Your task to perform on an android device: turn off sleep mode Image 0: 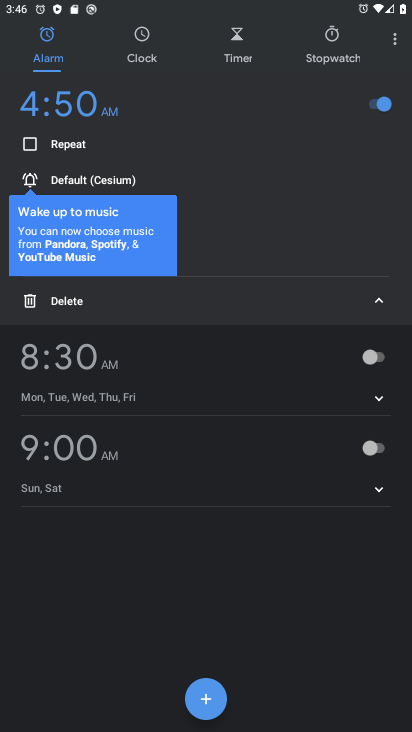
Step 0: press home button
Your task to perform on an android device: turn off sleep mode Image 1: 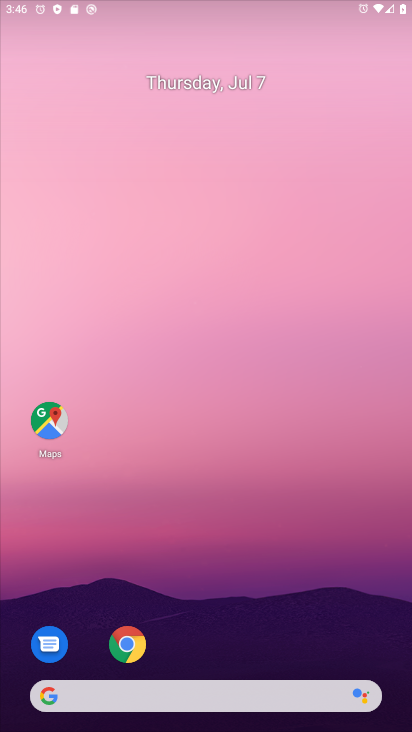
Step 1: drag from (350, 608) to (356, 39)
Your task to perform on an android device: turn off sleep mode Image 2: 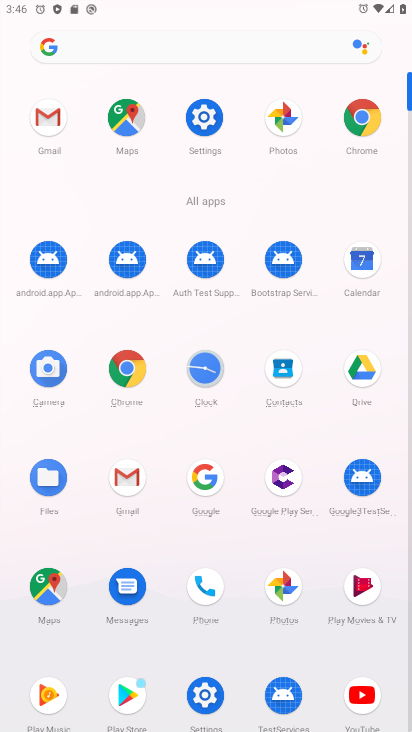
Step 2: click (195, 117)
Your task to perform on an android device: turn off sleep mode Image 3: 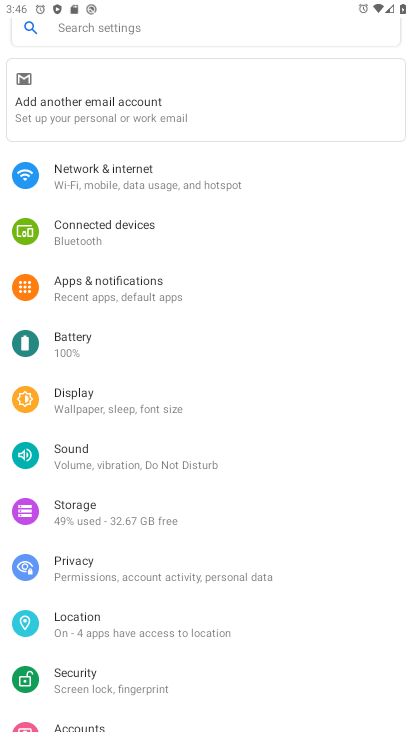
Step 3: click (49, 401)
Your task to perform on an android device: turn off sleep mode Image 4: 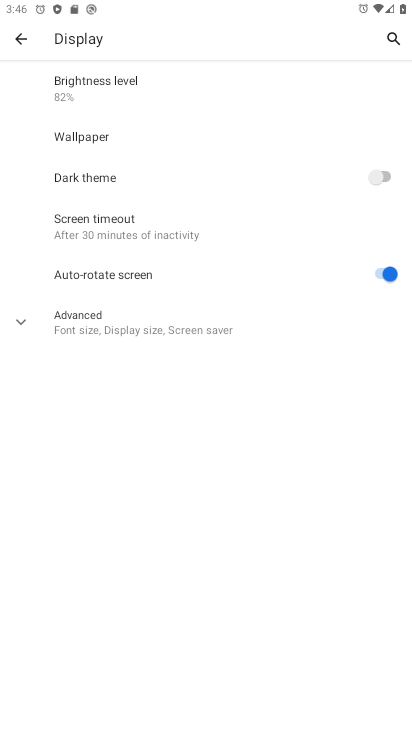
Step 4: click (13, 315)
Your task to perform on an android device: turn off sleep mode Image 5: 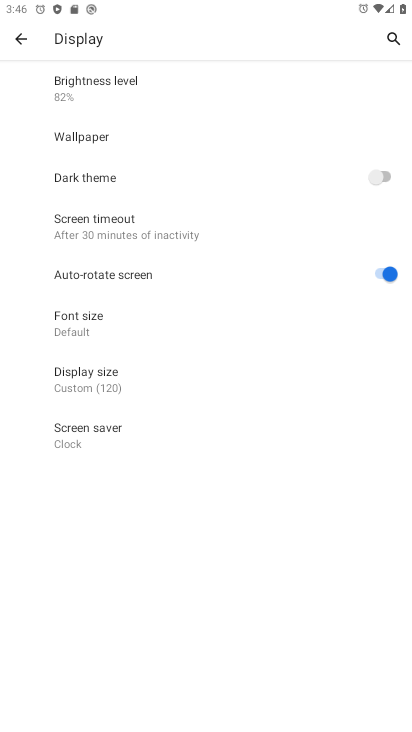
Step 5: task complete